Your task to perform on an android device: choose inbox layout in the gmail app Image 0: 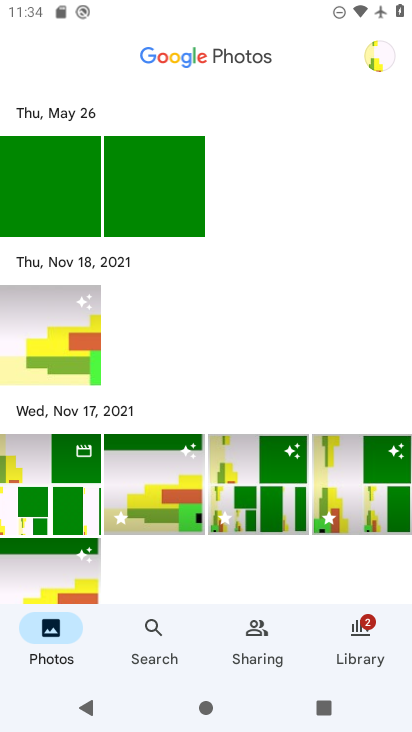
Step 0: press home button
Your task to perform on an android device: choose inbox layout in the gmail app Image 1: 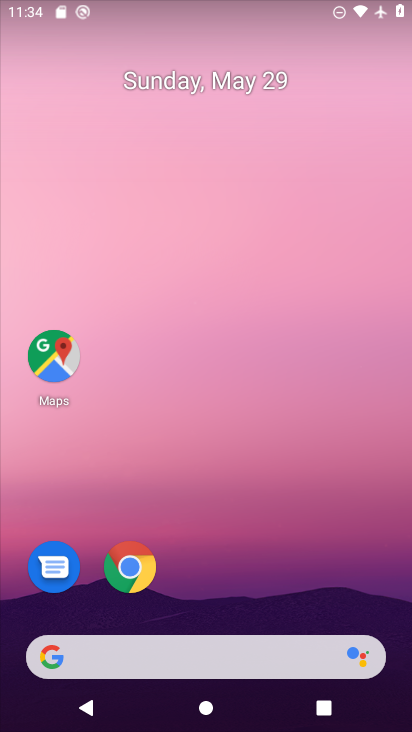
Step 1: drag from (385, 617) to (307, 68)
Your task to perform on an android device: choose inbox layout in the gmail app Image 2: 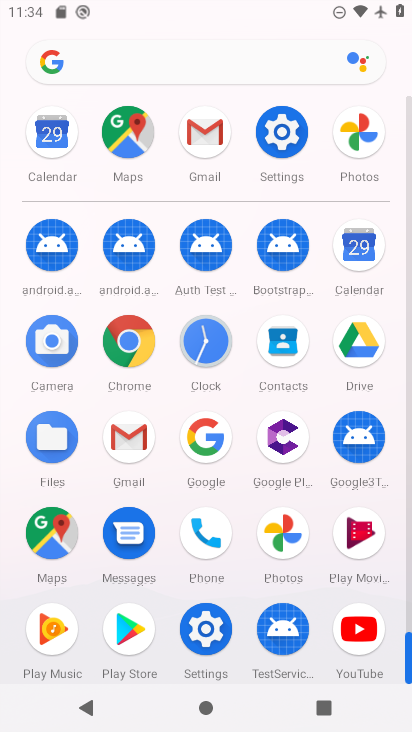
Step 2: click (126, 435)
Your task to perform on an android device: choose inbox layout in the gmail app Image 3: 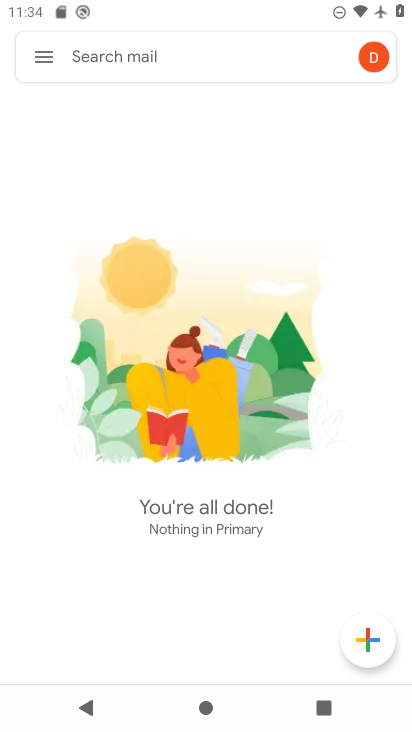
Step 3: click (40, 57)
Your task to perform on an android device: choose inbox layout in the gmail app Image 4: 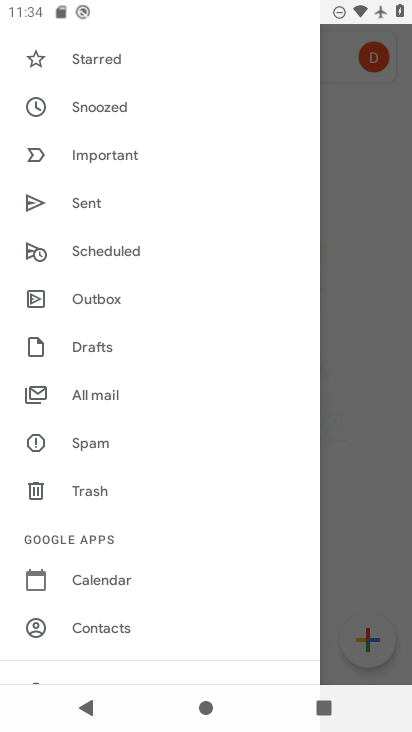
Step 4: drag from (151, 600) to (201, 272)
Your task to perform on an android device: choose inbox layout in the gmail app Image 5: 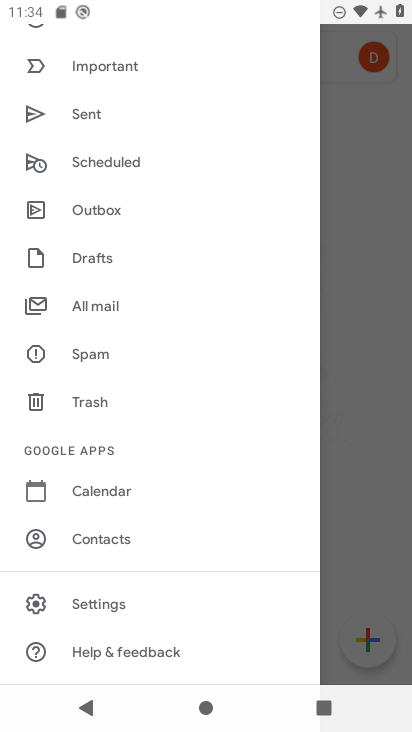
Step 5: click (95, 600)
Your task to perform on an android device: choose inbox layout in the gmail app Image 6: 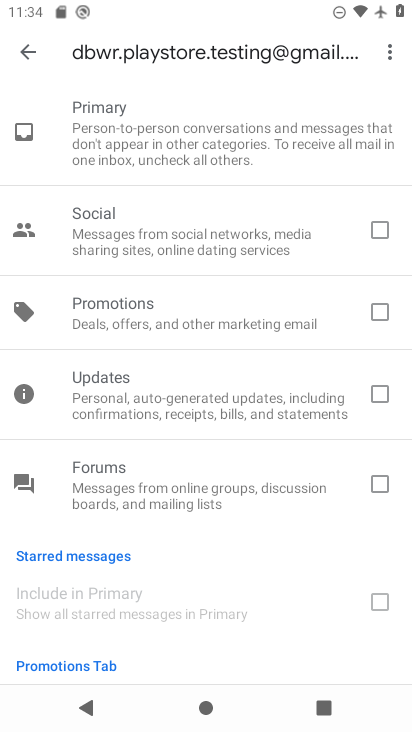
Step 6: press back button
Your task to perform on an android device: choose inbox layout in the gmail app Image 7: 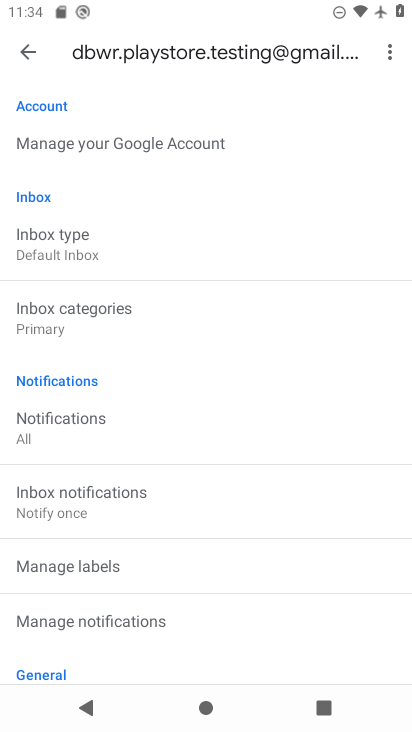
Step 7: click (67, 238)
Your task to perform on an android device: choose inbox layout in the gmail app Image 8: 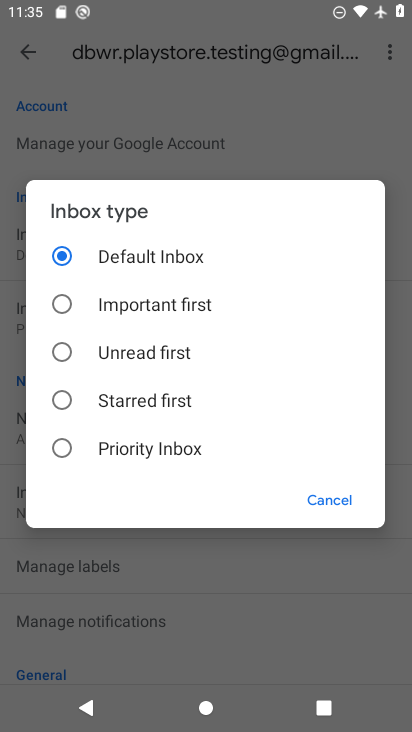
Step 8: click (66, 304)
Your task to perform on an android device: choose inbox layout in the gmail app Image 9: 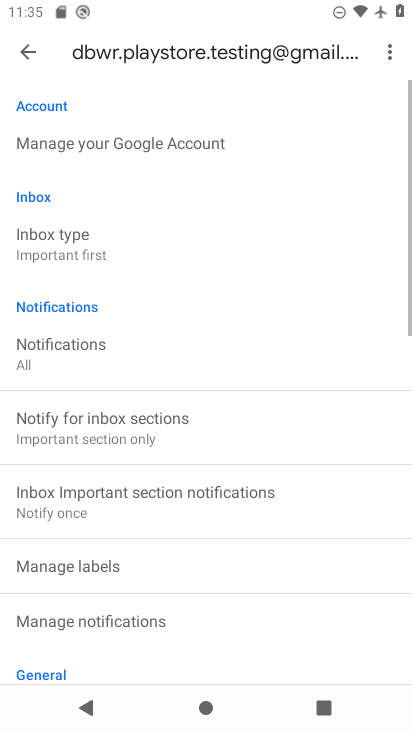
Step 9: task complete